Your task to perform on an android device: open a new tab in the chrome app Image 0: 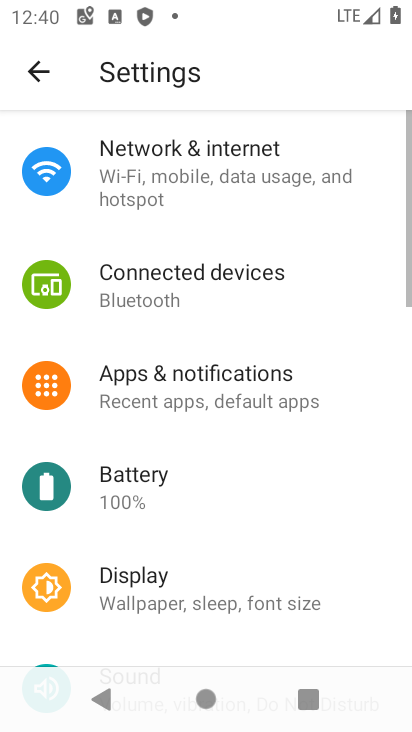
Step 0: press home button
Your task to perform on an android device: open a new tab in the chrome app Image 1: 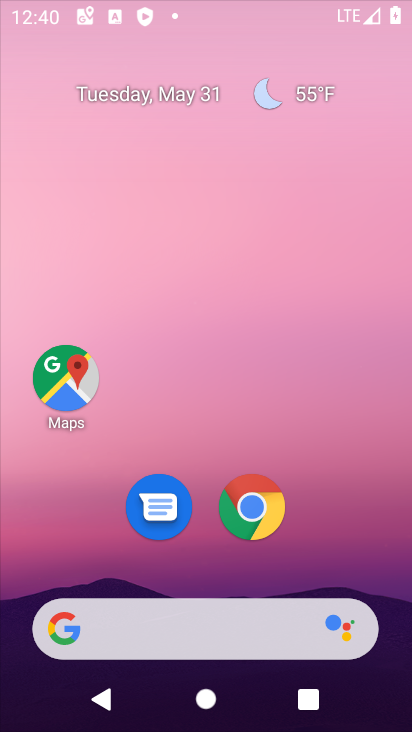
Step 1: drag from (395, 654) to (335, 47)
Your task to perform on an android device: open a new tab in the chrome app Image 2: 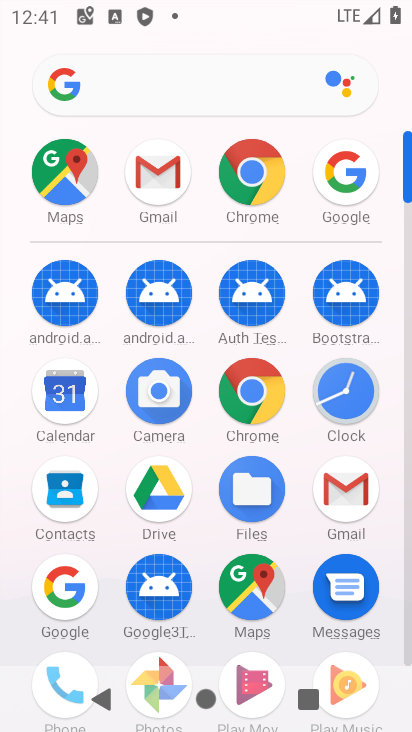
Step 2: click (264, 392)
Your task to perform on an android device: open a new tab in the chrome app Image 3: 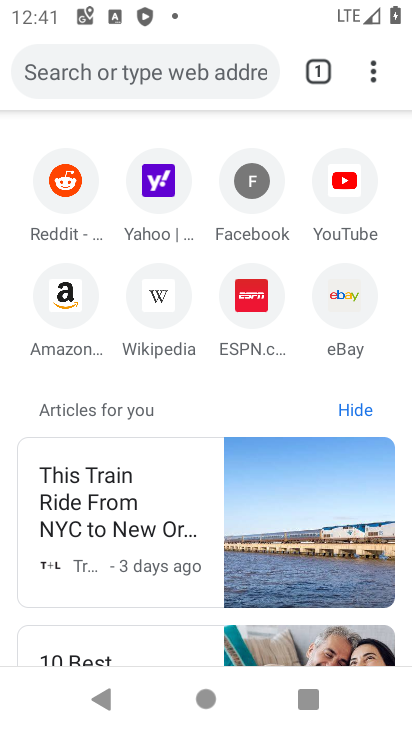
Step 3: click (377, 75)
Your task to perform on an android device: open a new tab in the chrome app Image 4: 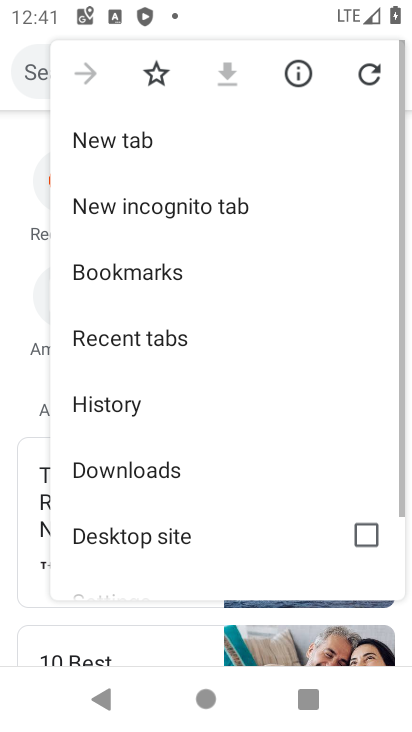
Step 4: click (173, 137)
Your task to perform on an android device: open a new tab in the chrome app Image 5: 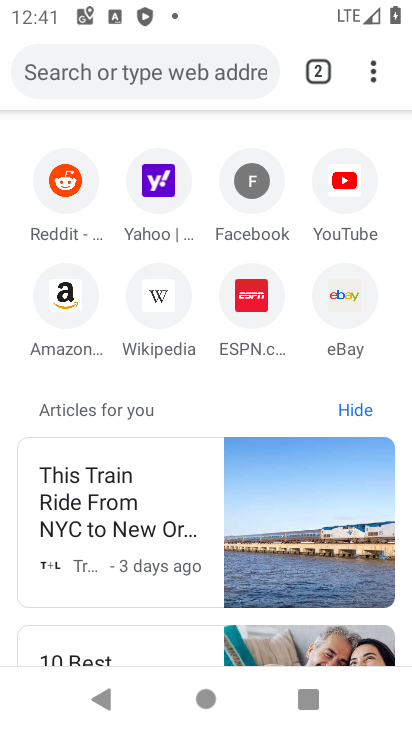
Step 5: task complete